Your task to perform on an android device: turn off sleep mode Image 0: 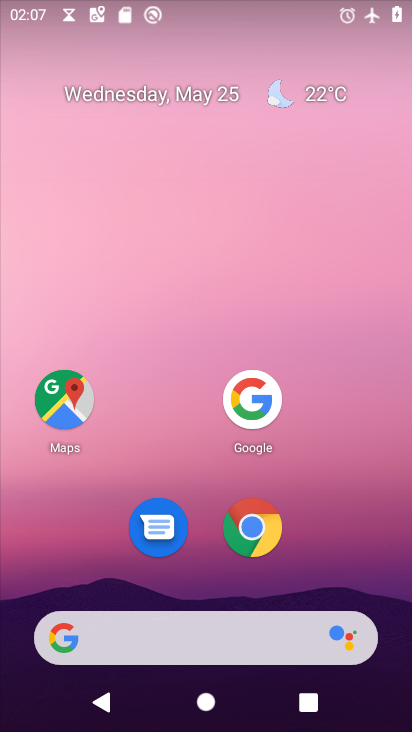
Step 0: press home button
Your task to perform on an android device: turn off sleep mode Image 1: 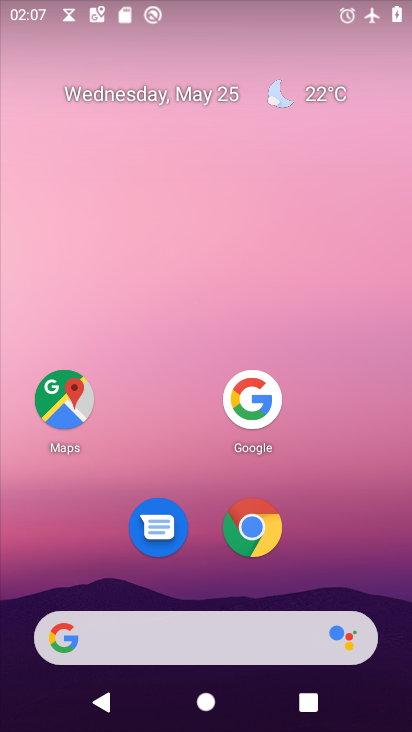
Step 1: drag from (159, 634) to (307, 144)
Your task to perform on an android device: turn off sleep mode Image 2: 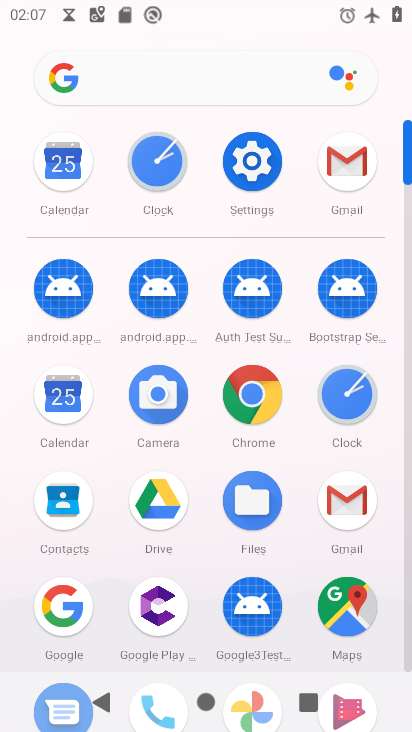
Step 2: click (267, 161)
Your task to perform on an android device: turn off sleep mode Image 3: 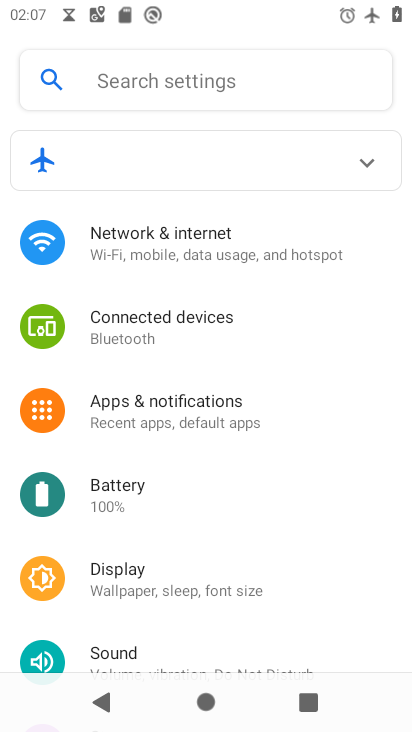
Step 3: click (151, 589)
Your task to perform on an android device: turn off sleep mode Image 4: 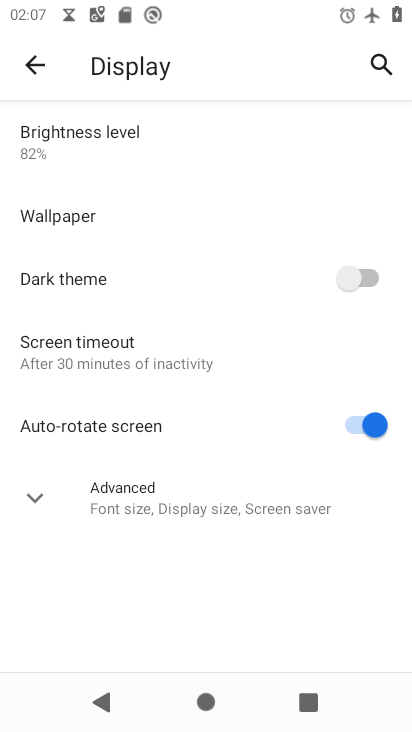
Step 4: task complete